Your task to perform on an android device: Go to settings Image 0: 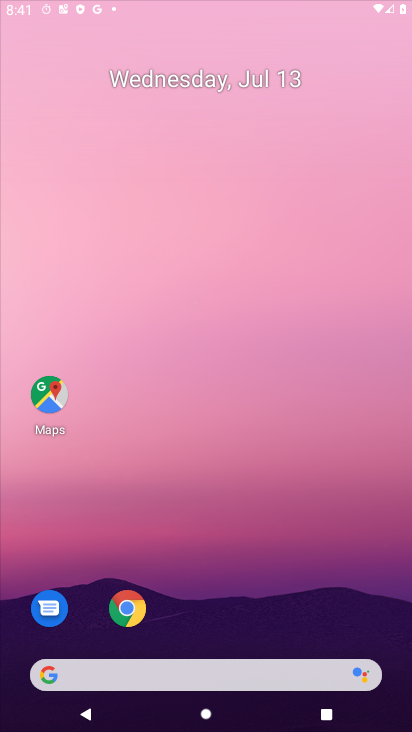
Step 0: drag from (251, 557) to (160, 166)
Your task to perform on an android device: Go to settings Image 1: 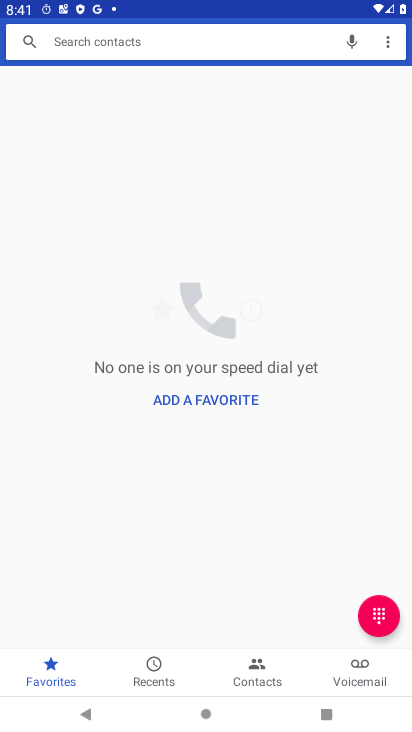
Step 1: press back button
Your task to perform on an android device: Go to settings Image 2: 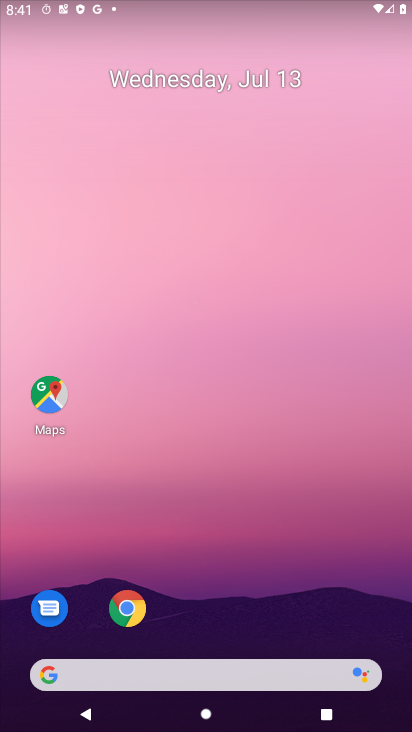
Step 2: drag from (195, 627) to (63, 88)
Your task to perform on an android device: Go to settings Image 3: 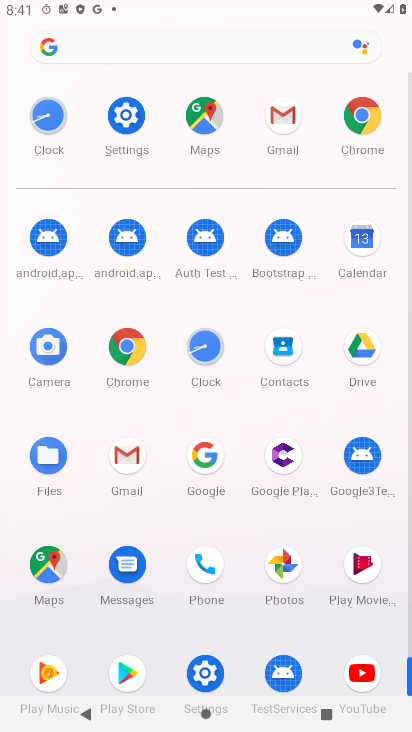
Step 3: click (118, 96)
Your task to perform on an android device: Go to settings Image 4: 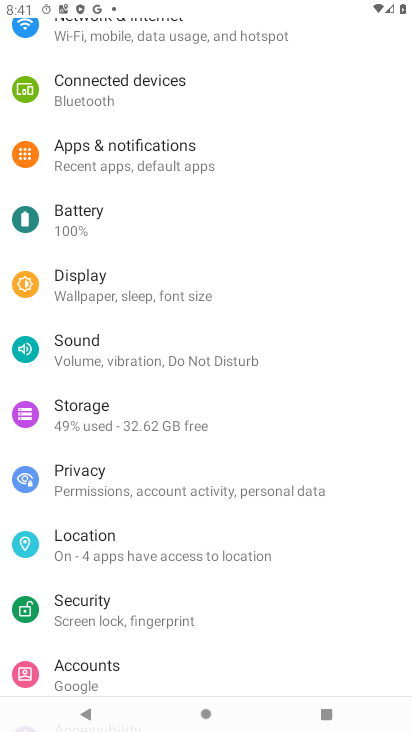
Step 4: task complete